Your task to perform on an android device: What's on my calendar today? Image 0: 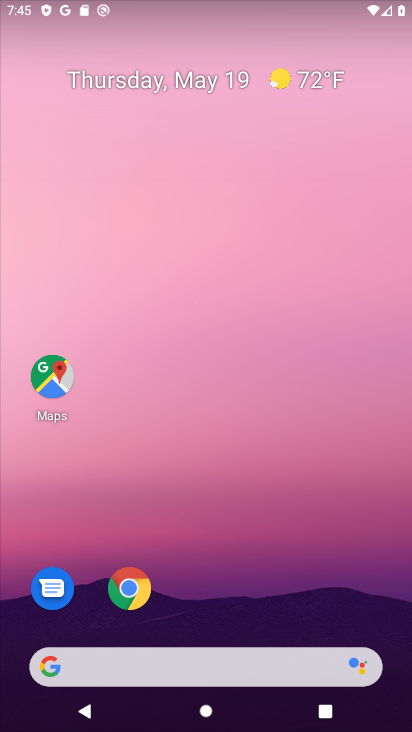
Step 0: drag from (301, 598) to (247, 1)
Your task to perform on an android device: What's on my calendar today? Image 1: 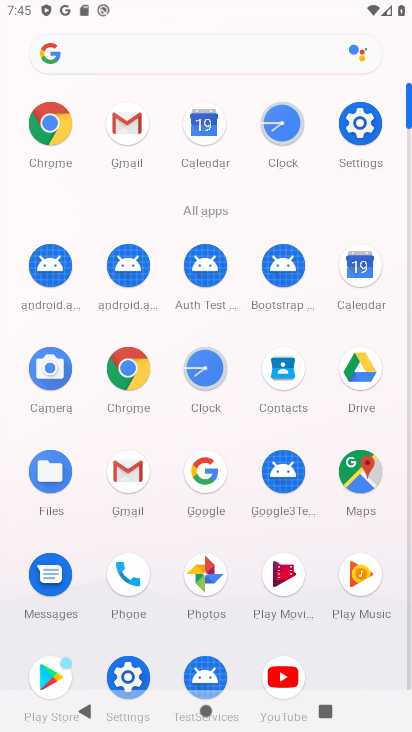
Step 1: click (366, 270)
Your task to perform on an android device: What's on my calendar today? Image 2: 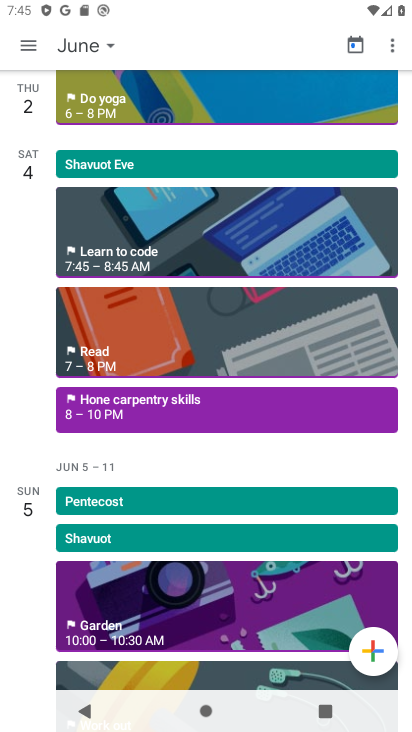
Step 2: click (37, 54)
Your task to perform on an android device: What's on my calendar today? Image 3: 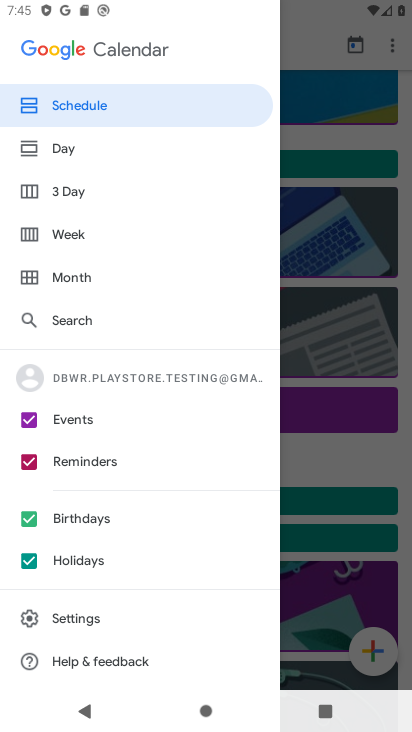
Step 3: click (85, 158)
Your task to perform on an android device: What's on my calendar today? Image 4: 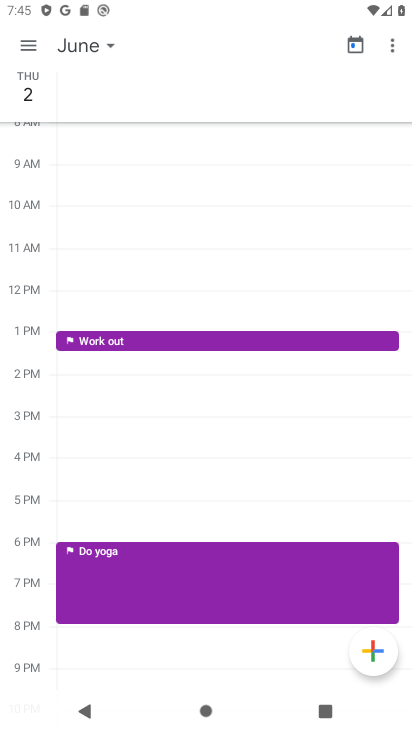
Step 4: click (76, 46)
Your task to perform on an android device: What's on my calendar today? Image 5: 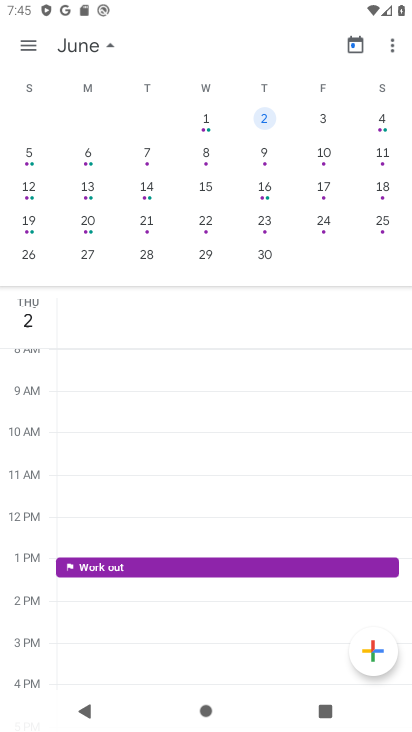
Step 5: drag from (37, 176) to (410, 227)
Your task to perform on an android device: What's on my calendar today? Image 6: 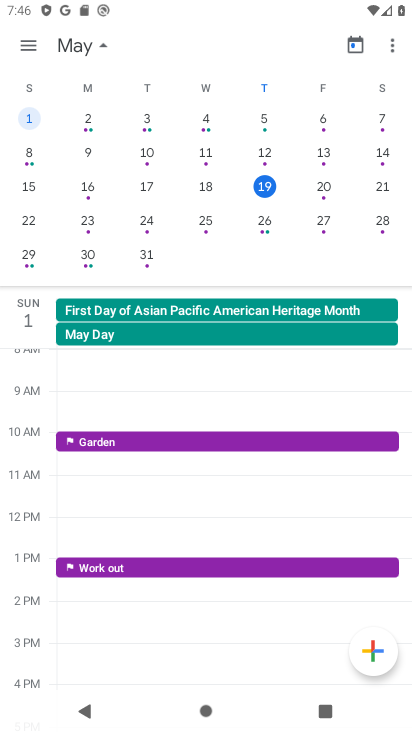
Step 6: click (268, 188)
Your task to perform on an android device: What's on my calendar today? Image 7: 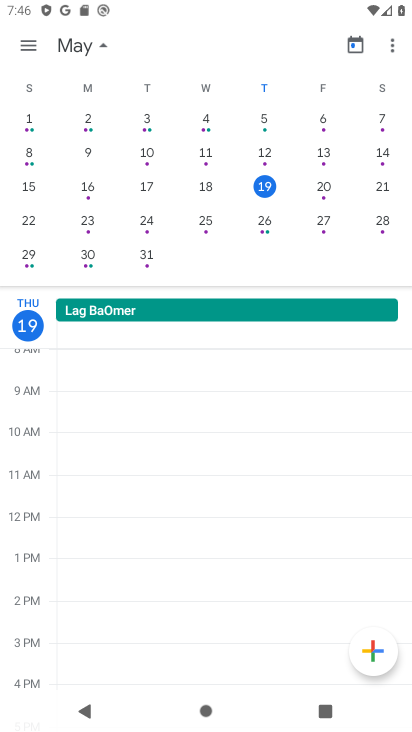
Step 7: task complete